Your task to perform on an android device: When is my next meeting? Image 0: 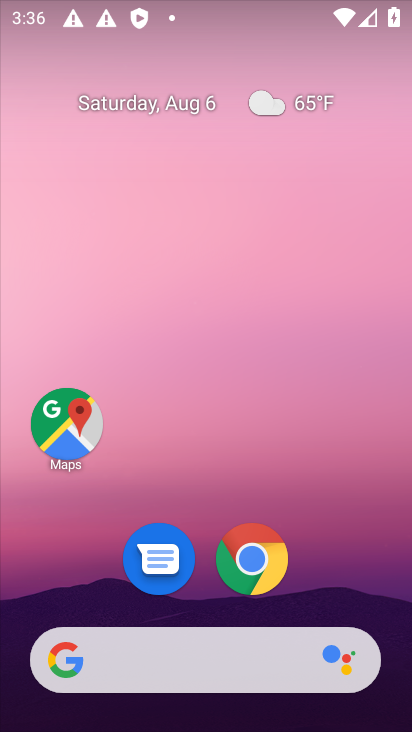
Step 0: drag from (308, 577) to (342, 13)
Your task to perform on an android device: When is my next meeting? Image 1: 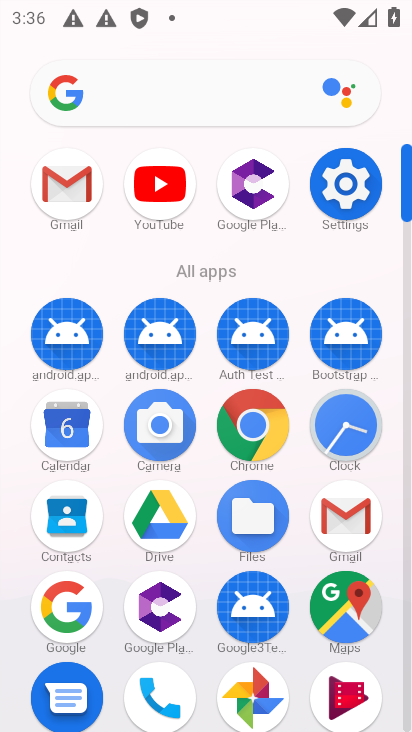
Step 1: click (74, 420)
Your task to perform on an android device: When is my next meeting? Image 2: 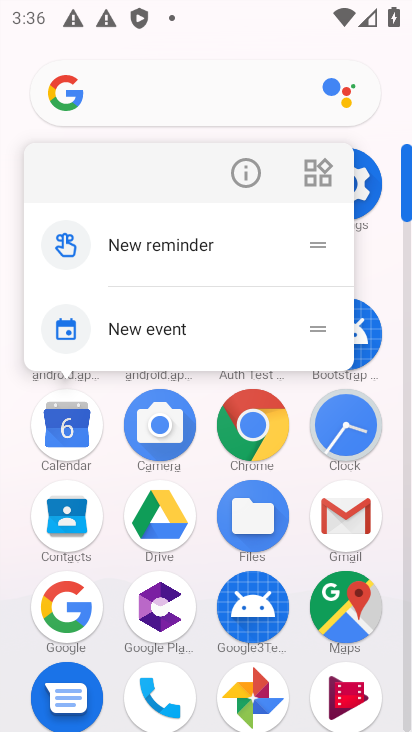
Step 2: click (74, 419)
Your task to perform on an android device: When is my next meeting? Image 3: 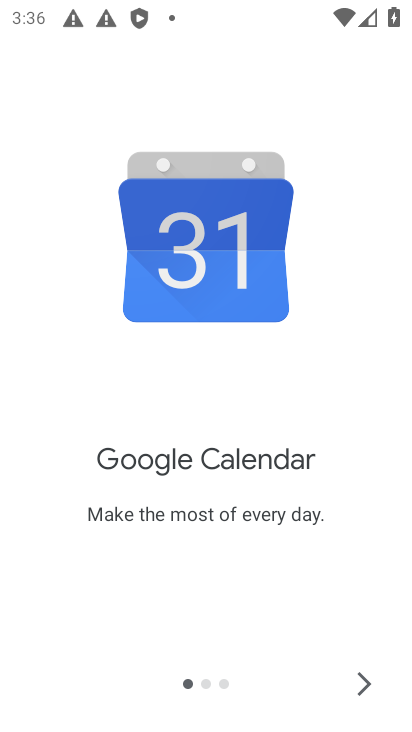
Step 3: click (356, 682)
Your task to perform on an android device: When is my next meeting? Image 4: 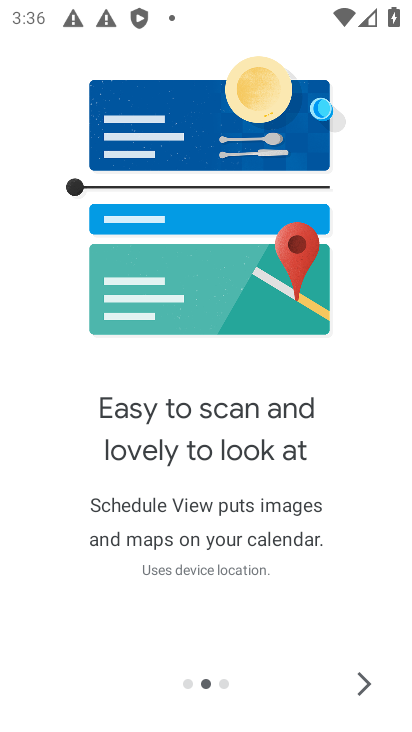
Step 4: click (373, 685)
Your task to perform on an android device: When is my next meeting? Image 5: 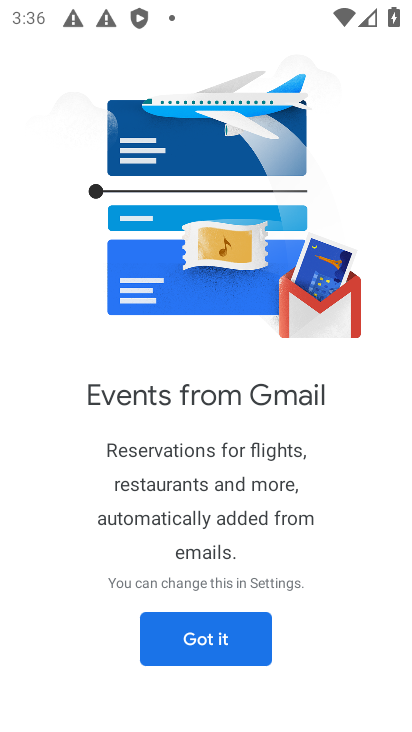
Step 5: click (251, 631)
Your task to perform on an android device: When is my next meeting? Image 6: 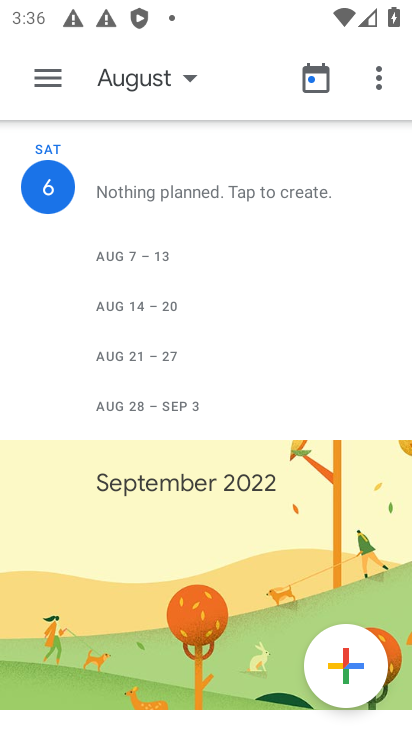
Step 6: task complete